Your task to perform on an android device: toggle notifications settings in the gmail app Image 0: 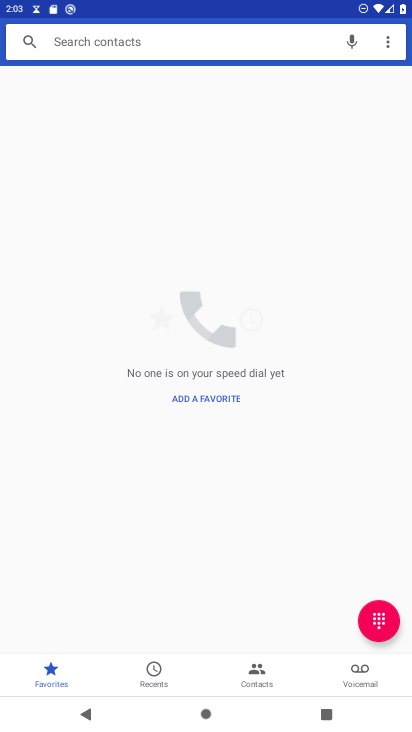
Step 0: press home button
Your task to perform on an android device: toggle notifications settings in the gmail app Image 1: 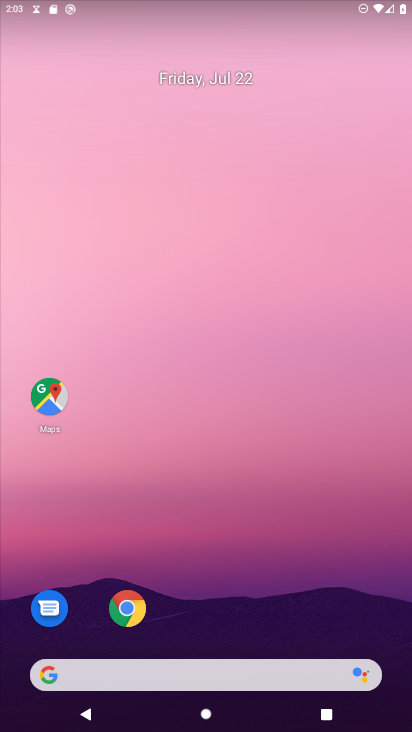
Step 1: drag from (328, 627) to (220, 17)
Your task to perform on an android device: toggle notifications settings in the gmail app Image 2: 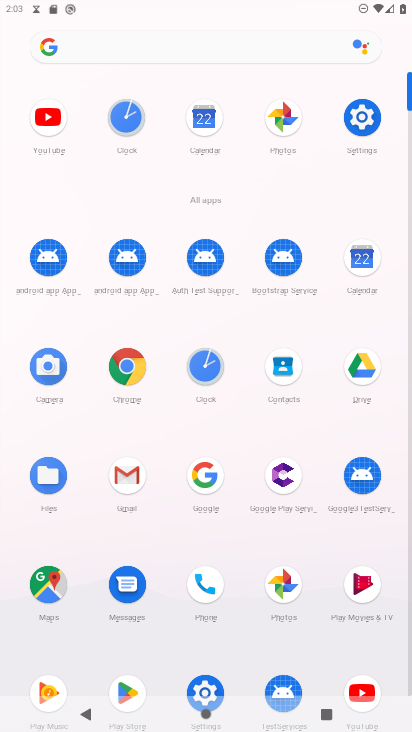
Step 2: click (123, 488)
Your task to perform on an android device: toggle notifications settings in the gmail app Image 3: 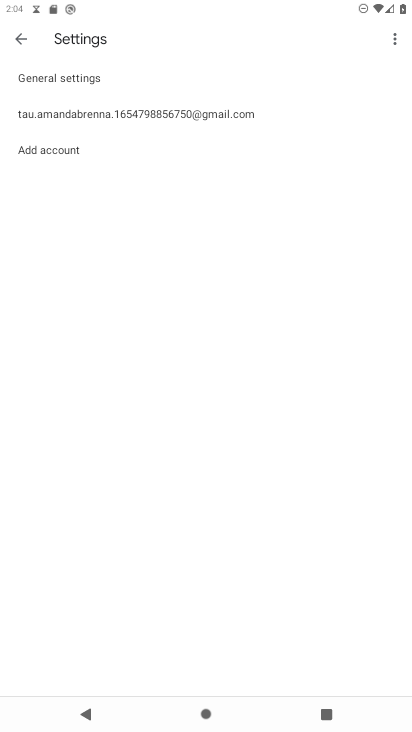
Step 3: click (103, 125)
Your task to perform on an android device: toggle notifications settings in the gmail app Image 4: 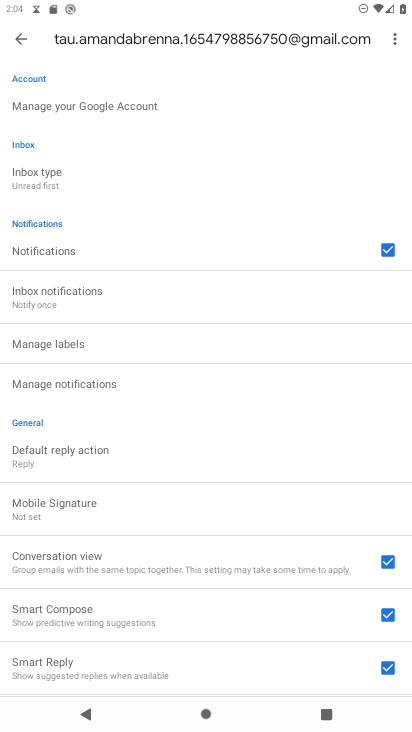
Step 4: click (107, 388)
Your task to perform on an android device: toggle notifications settings in the gmail app Image 5: 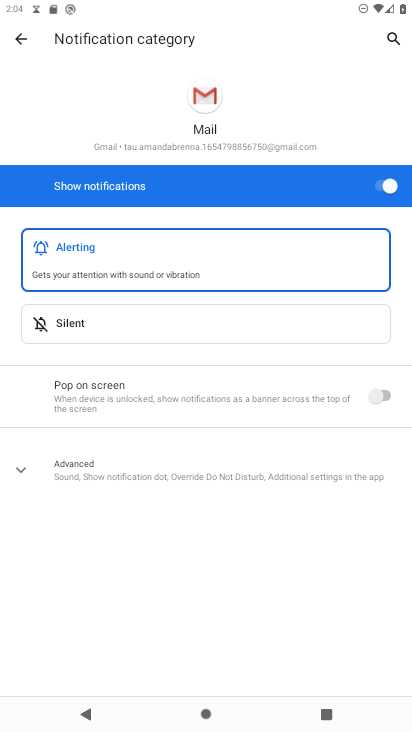
Step 5: click (348, 183)
Your task to perform on an android device: toggle notifications settings in the gmail app Image 6: 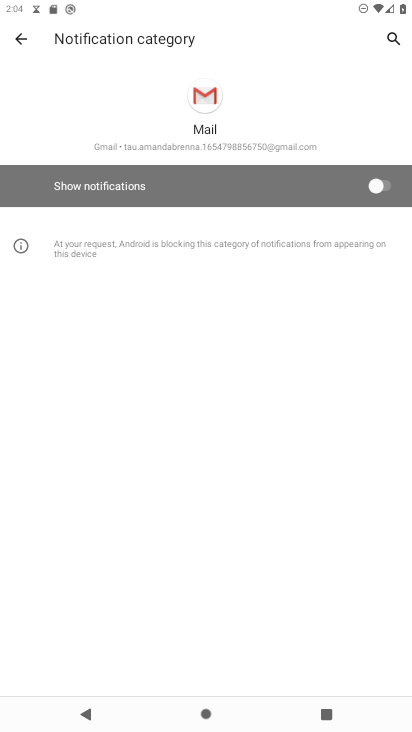
Step 6: task complete